Your task to perform on an android device: Go to notification settings Image 0: 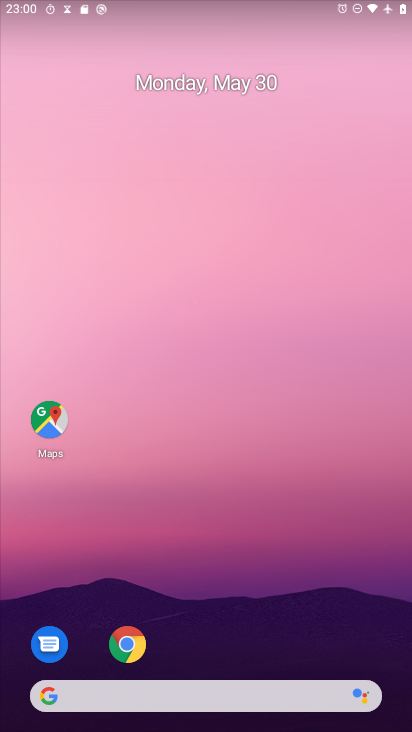
Step 0: drag from (249, 627) to (279, 43)
Your task to perform on an android device: Go to notification settings Image 1: 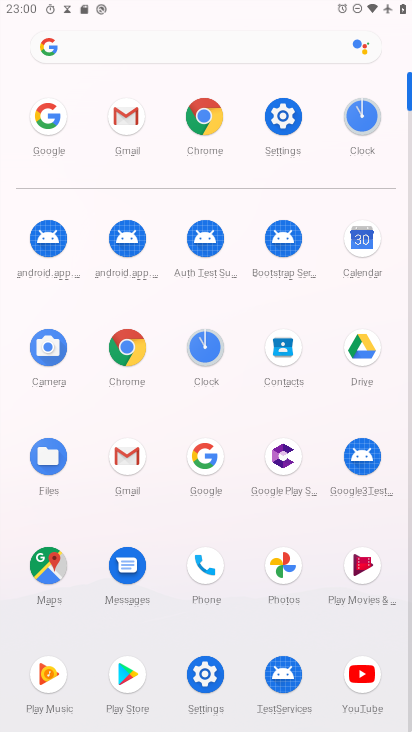
Step 1: click (283, 114)
Your task to perform on an android device: Go to notification settings Image 2: 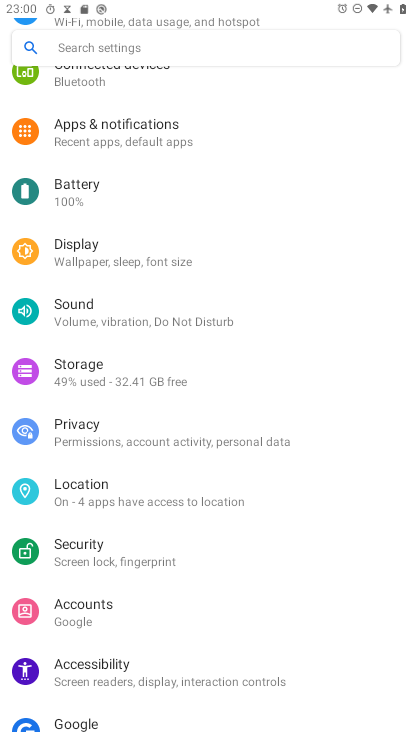
Step 2: click (105, 135)
Your task to perform on an android device: Go to notification settings Image 3: 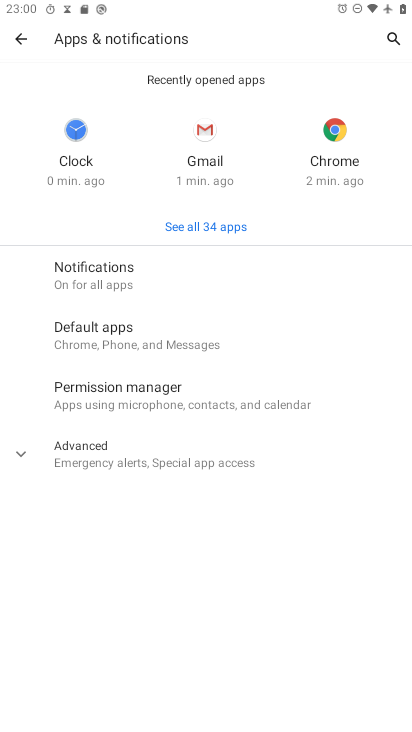
Step 3: click (135, 266)
Your task to perform on an android device: Go to notification settings Image 4: 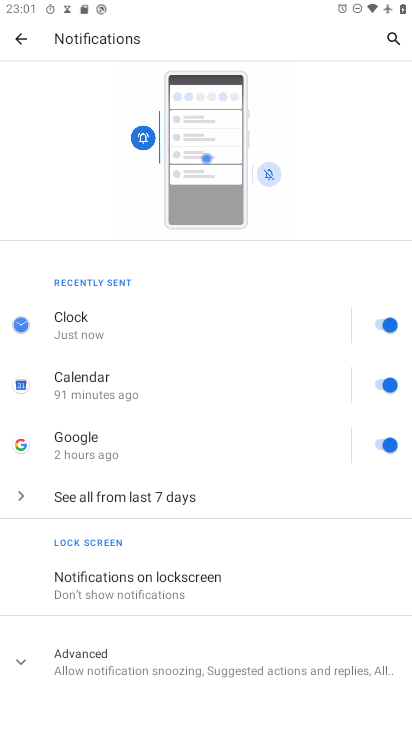
Step 4: task complete